Your task to perform on an android device: turn vacation reply on in the gmail app Image 0: 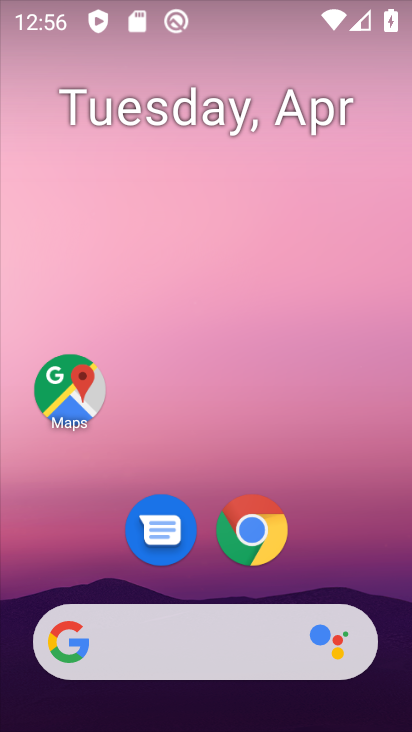
Step 0: drag from (285, 342) to (264, 25)
Your task to perform on an android device: turn vacation reply on in the gmail app Image 1: 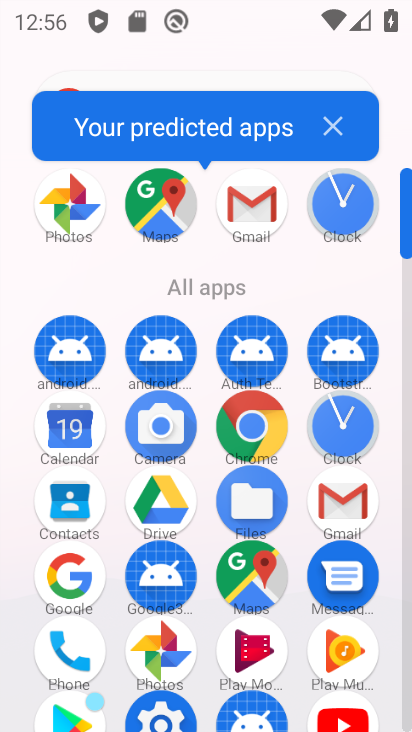
Step 1: drag from (2, 503) to (11, 235)
Your task to perform on an android device: turn vacation reply on in the gmail app Image 2: 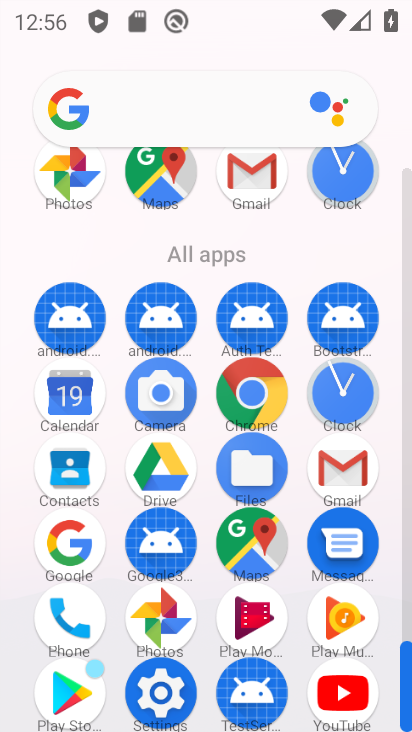
Step 2: click (345, 460)
Your task to perform on an android device: turn vacation reply on in the gmail app Image 3: 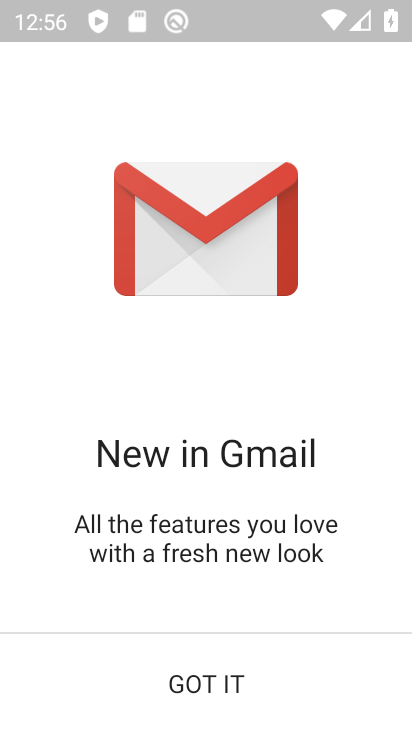
Step 3: click (220, 690)
Your task to perform on an android device: turn vacation reply on in the gmail app Image 4: 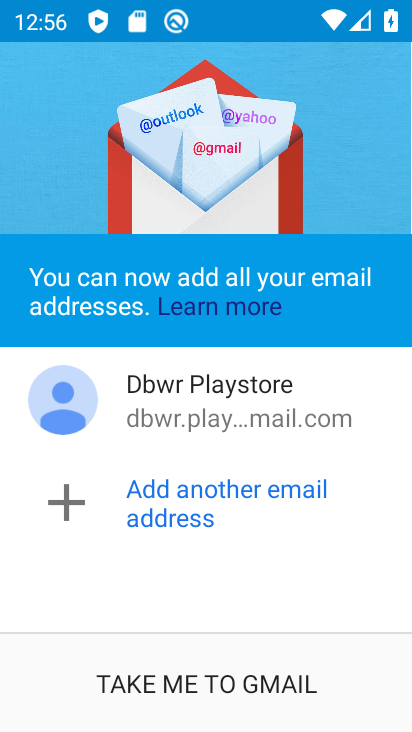
Step 4: click (220, 690)
Your task to perform on an android device: turn vacation reply on in the gmail app Image 5: 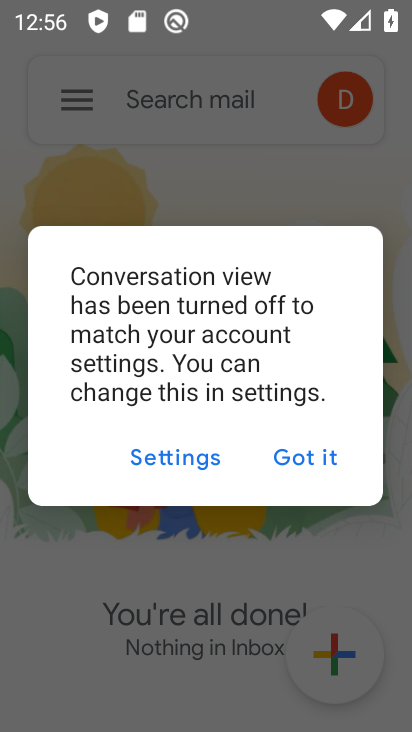
Step 5: click (319, 458)
Your task to perform on an android device: turn vacation reply on in the gmail app Image 6: 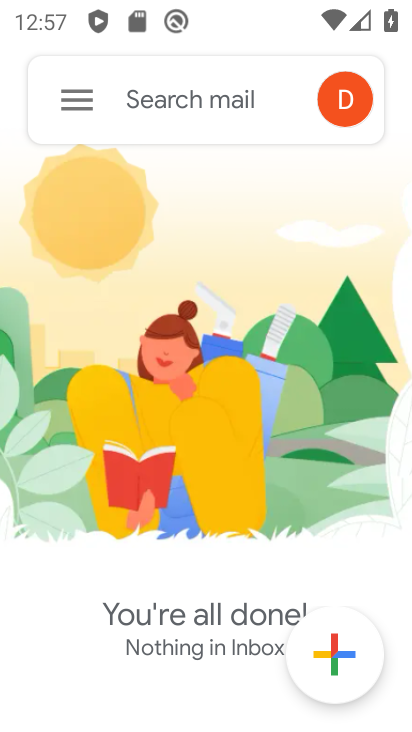
Step 6: click (75, 116)
Your task to perform on an android device: turn vacation reply on in the gmail app Image 7: 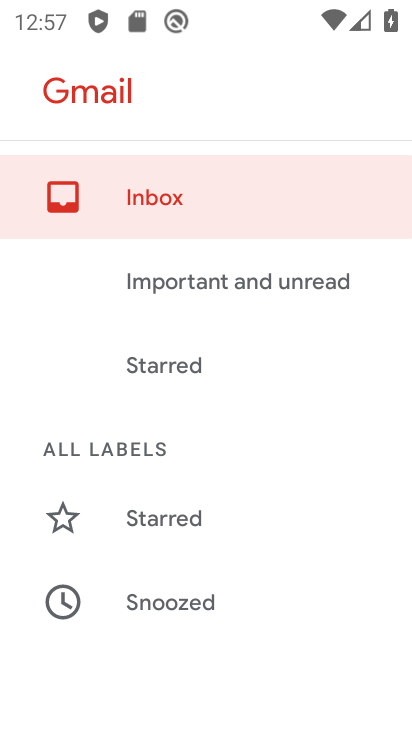
Step 7: drag from (221, 532) to (227, 170)
Your task to perform on an android device: turn vacation reply on in the gmail app Image 8: 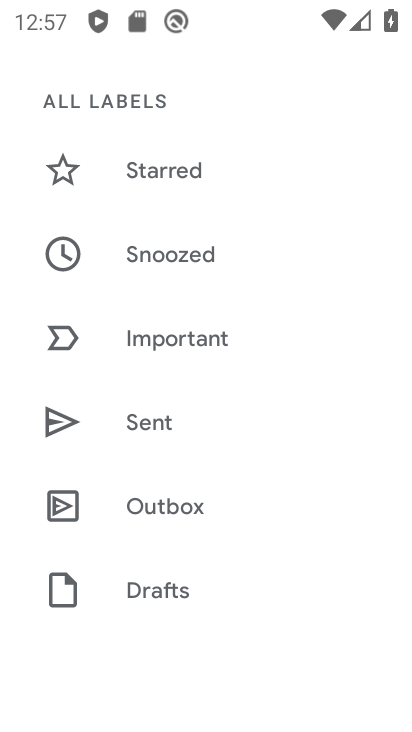
Step 8: drag from (227, 524) to (236, 149)
Your task to perform on an android device: turn vacation reply on in the gmail app Image 9: 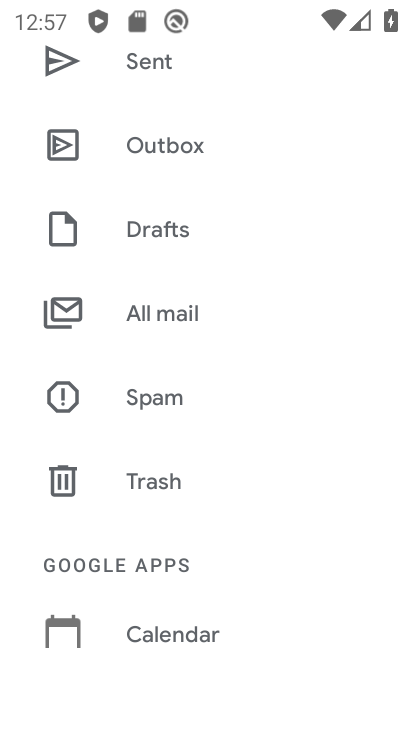
Step 9: drag from (213, 516) to (216, 174)
Your task to perform on an android device: turn vacation reply on in the gmail app Image 10: 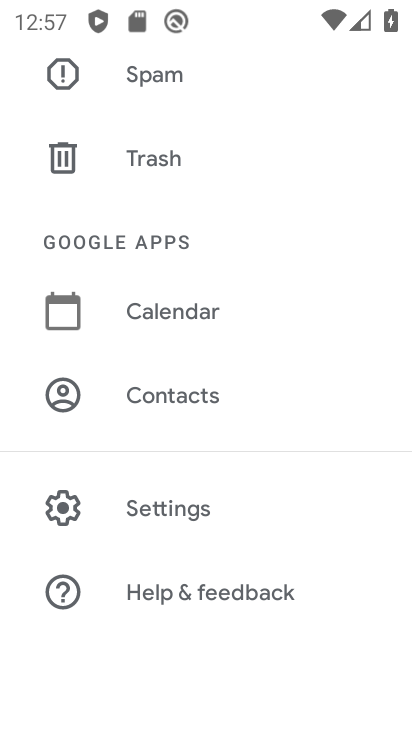
Step 10: click (205, 513)
Your task to perform on an android device: turn vacation reply on in the gmail app Image 11: 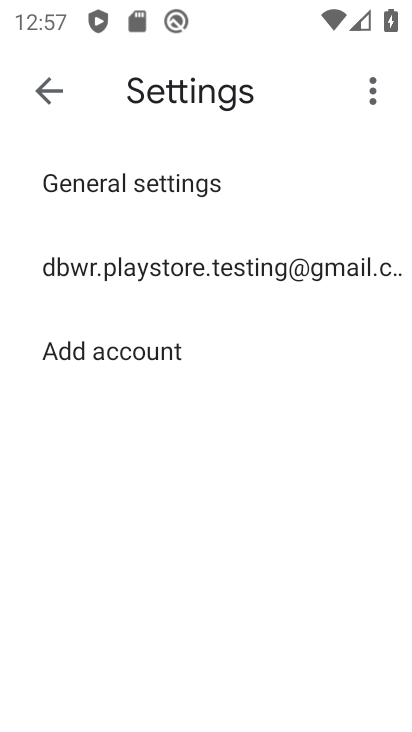
Step 11: click (148, 268)
Your task to perform on an android device: turn vacation reply on in the gmail app Image 12: 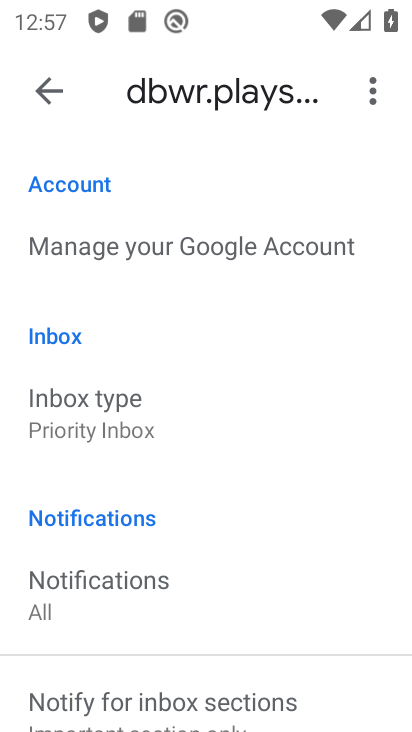
Step 12: drag from (222, 512) to (223, 142)
Your task to perform on an android device: turn vacation reply on in the gmail app Image 13: 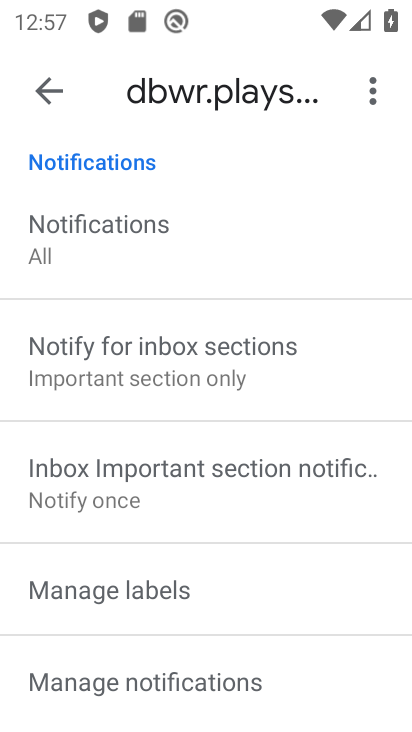
Step 13: drag from (216, 434) to (216, 159)
Your task to perform on an android device: turn vacation reply on in the gmail app Image 14: 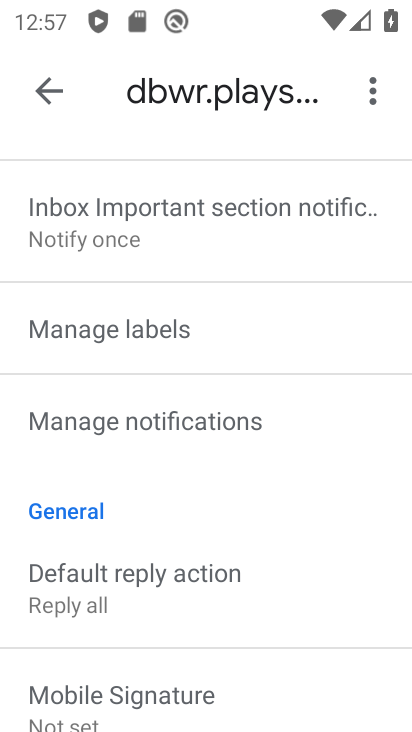
Step 14: drag from (202, 474) to (219, 164)
Your task to perform on an android device: turn vacation reply on in the gmail app Image 15: 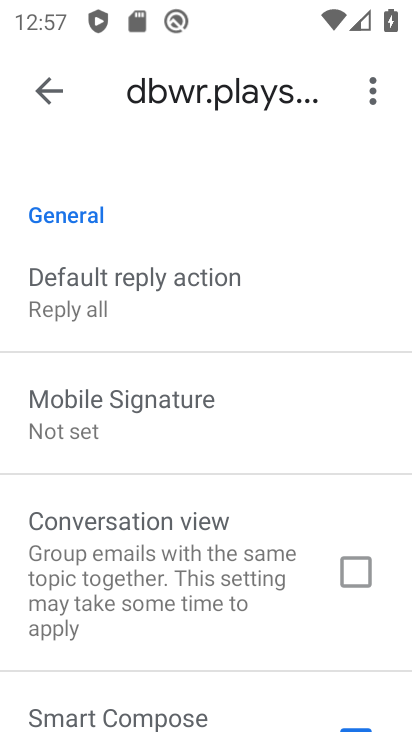
Step 15: drag from (193, 479) to (210, 152)
Your task to perform on an android device: turn vacation reply on in the gmail app Image 16: 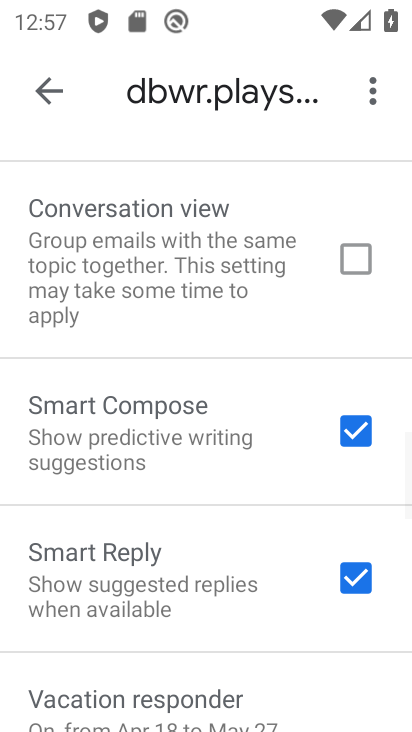
Step 16: drag from (191, 501) to (200, 167)
Your task to perform on an android device: turn vacation reply on in the gmail app Image 17: 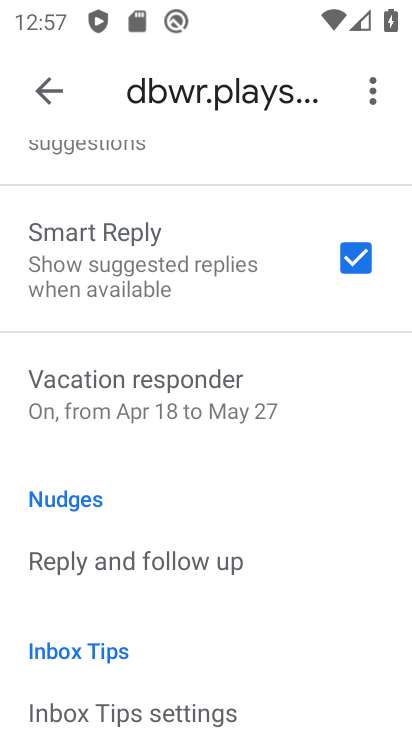
Step 17: drag from (181, 513) to (181, 296)
Your task to perform on an android device: turn vacation reply on in the gmail app Image 18: 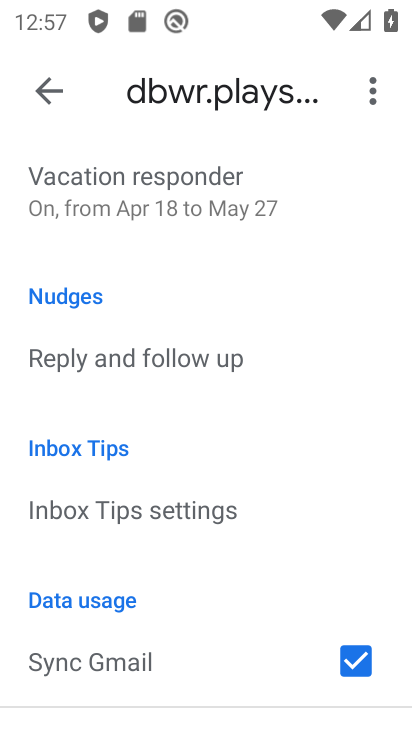
Step 18: click (148, 194)
Your task to perform on an android device: turn vacation reply on in the gmail app Image 19: 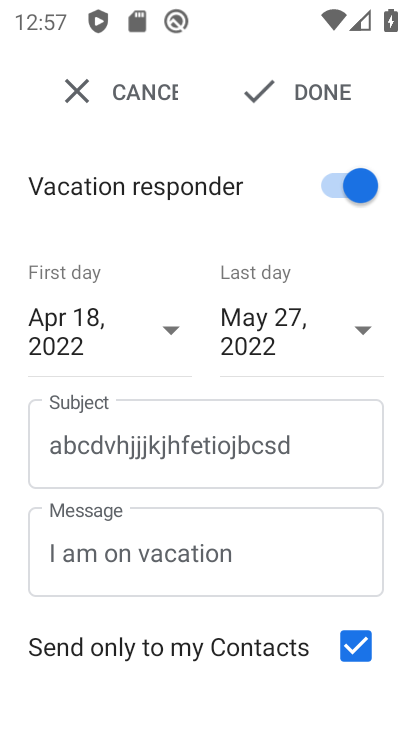
Step 19: click (297, 85)
Your task to perform on an android device: turn vacation reply on in the gmail app Image 20: 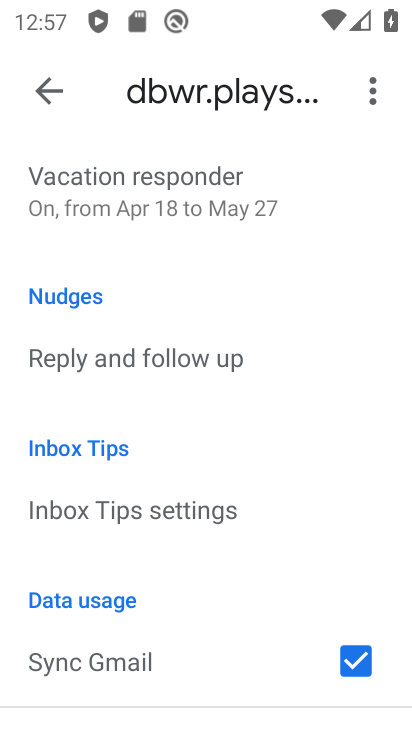
Step 20: task complete